Your task to perform on an android device: Open location settings Image 0: 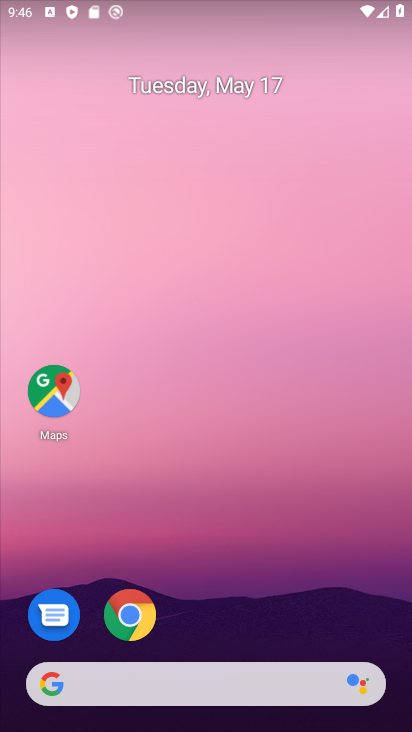
Step 0: drag from (381, 643) to (297, 0)
Your task to perform on an android device: Open location settings Image 1: 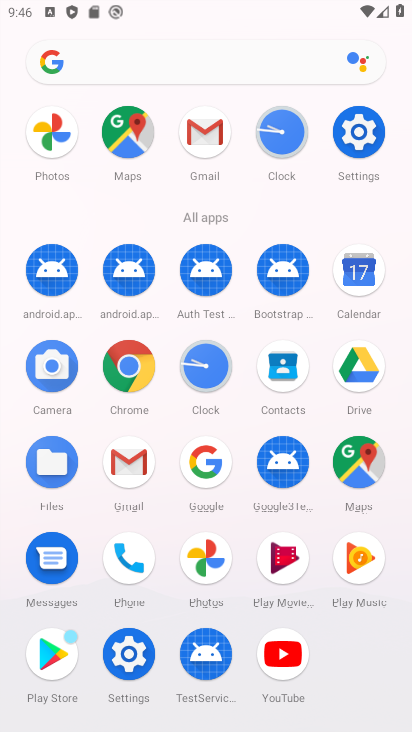
Step 1: click (127, 654)
Your task to perform on an android device: Open location settings Image 2: 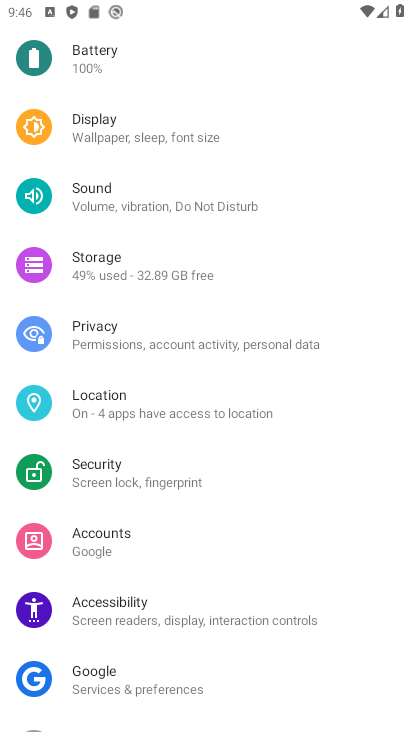
Step 2: click (118, 417)
Your task to perform on an android device: Open location settings Image 3: 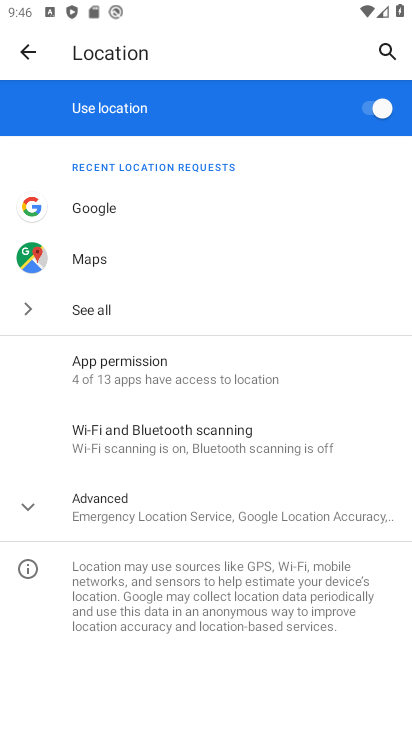
Step 3: click (356, 108)
Your task to perform on an android device: Open location settings Image 4: 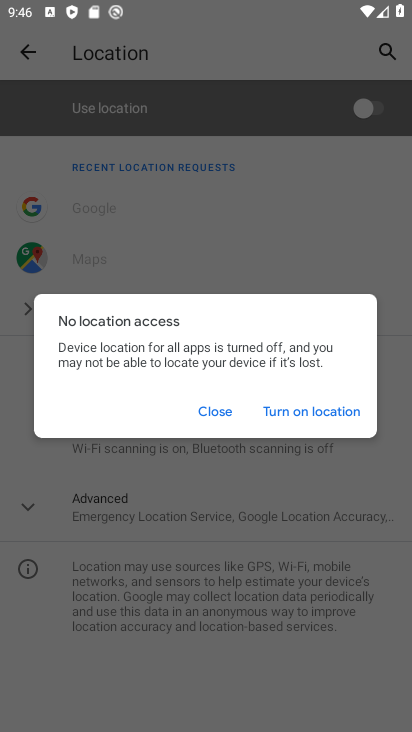
Step 4: click (221, 415)
Your task to perform on an android device: Open location settings Image 5: 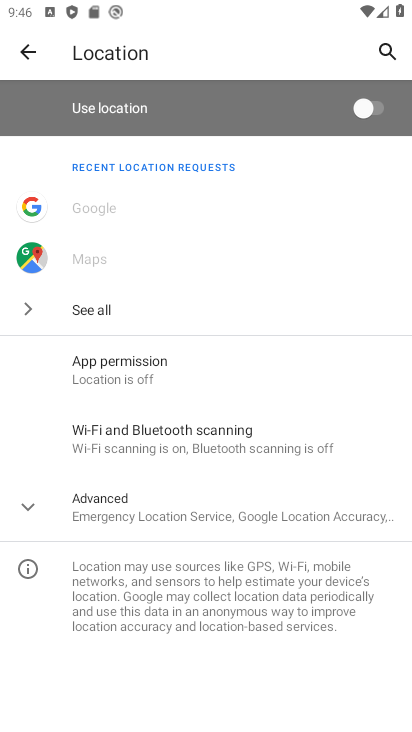
Step 5: task complete